Your task to perform on an android device: turn off airplane mode Image 0: 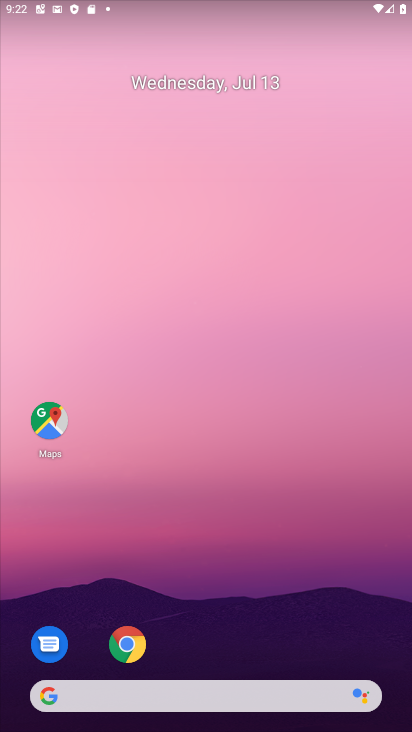
Step 0: drag from (210, 666) to (292, 158)
Your task to perform on an android device: turn off airplane mode Image 1: 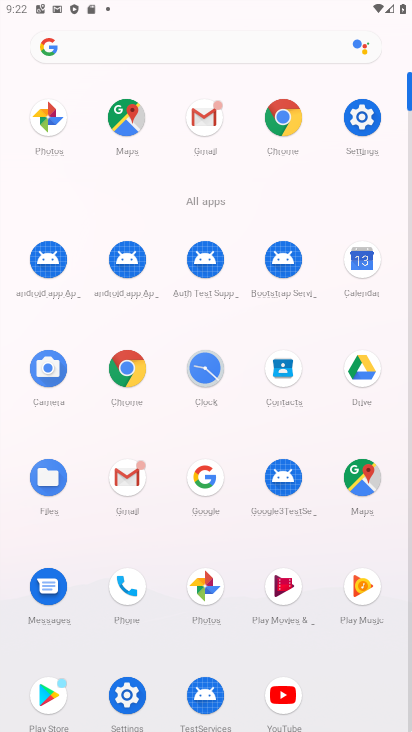
Step 1: click (131, 701)
Your task to perform on an android device: turn off airplane mode Image 2: 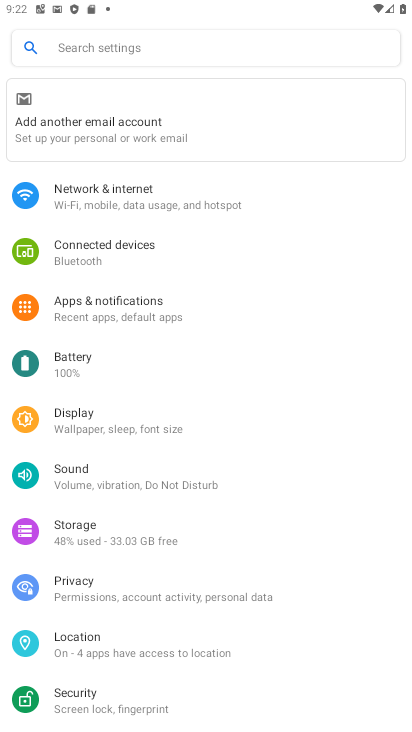
Step 2: click (192, 203)
Your task to perform on an android device: turn off airplane mode Image 3: 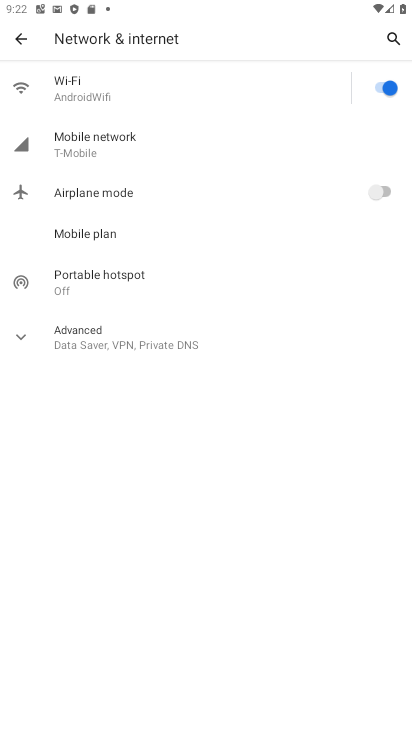
Step 3: task complete